Your task to perform on an android device: Open CNN.com Image 0: 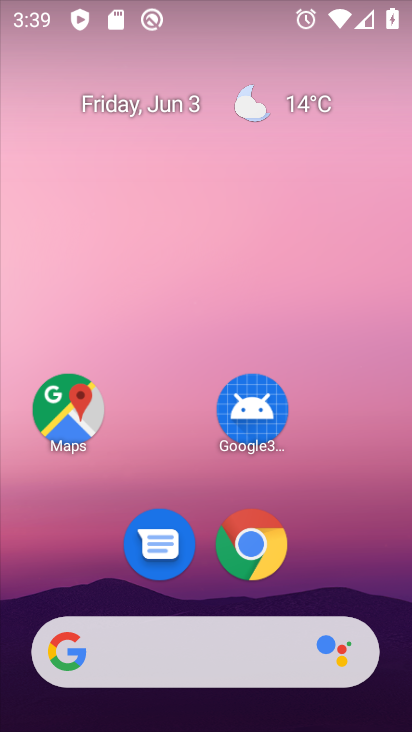
Step 0: click (177, 657)
Your task to perform on an android device: Open CNN.com Image 1: 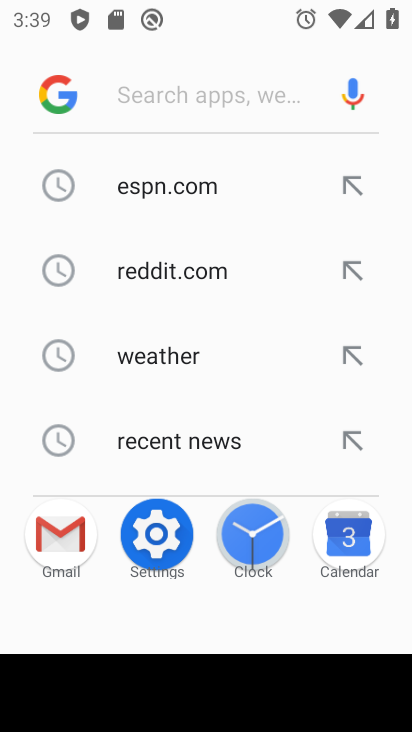
Step 1: type "CNN.com"
Your task to perform on an android device: Open CNN.com Image 2: 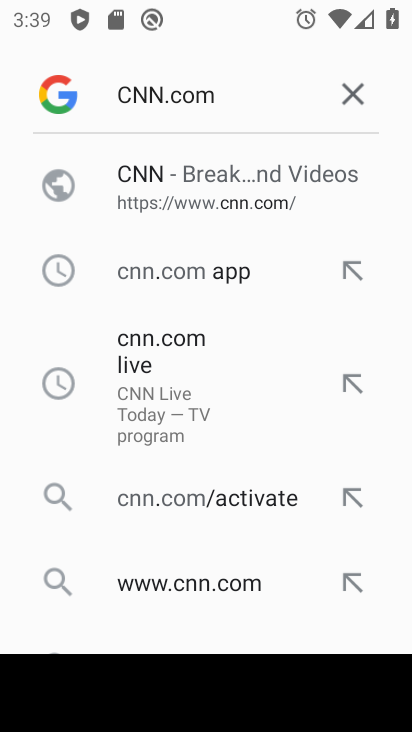
Step 2: click (248, 200)
Your task to perform on an android device: Open CNN.com Image 3: 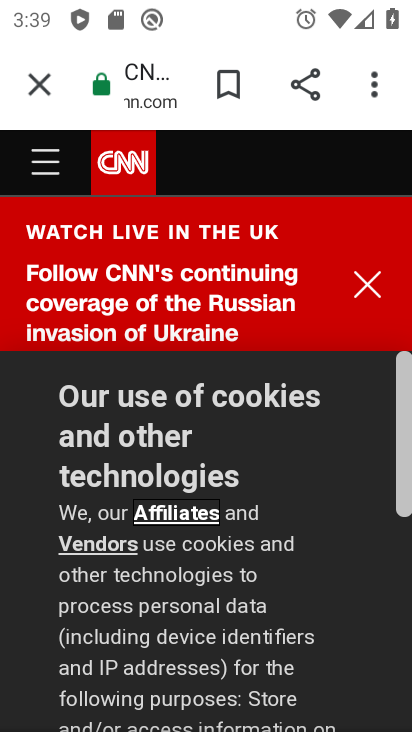
Step 3: task complete